Your task to perform on an android device: Show me productivity apps on the Play Store Image 0: 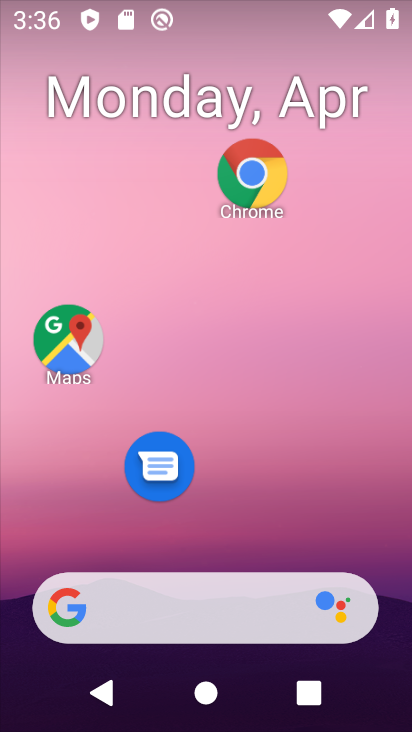
Step 0: drag from (332, 548) to (307, 113)
Your task to perform on an android device: Show me productivity apps on the Play Store Image 1: 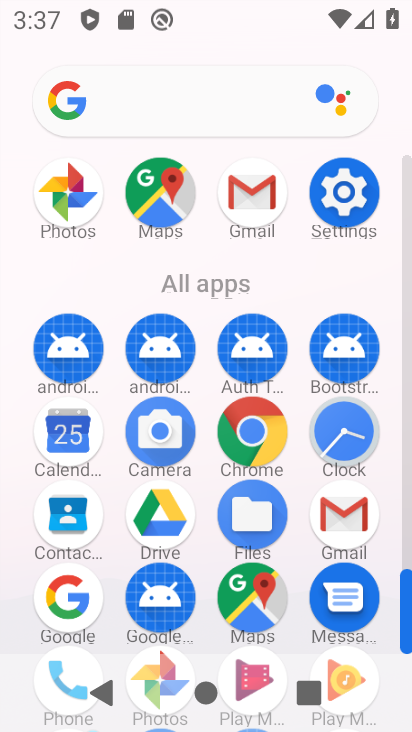
Step 1: drag from (392, 562) to (389, 330)
Your task to perform on an android device: Show me productivity apps on the Play Store Image 2: 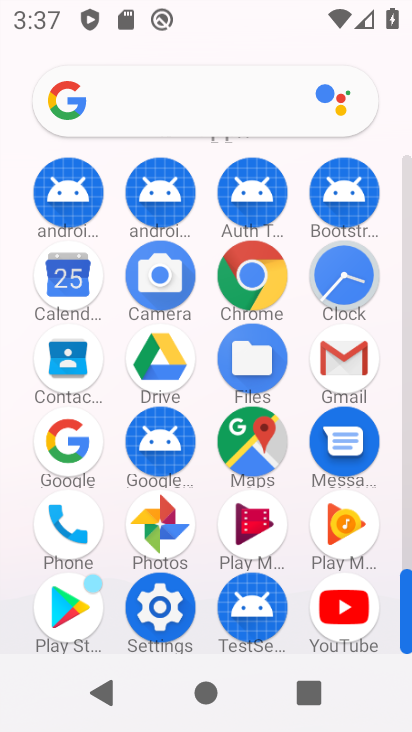
Step 2: click (67, 601)
Your task to perform on an android device: Show me productivity apps on the Play Store Image 3: 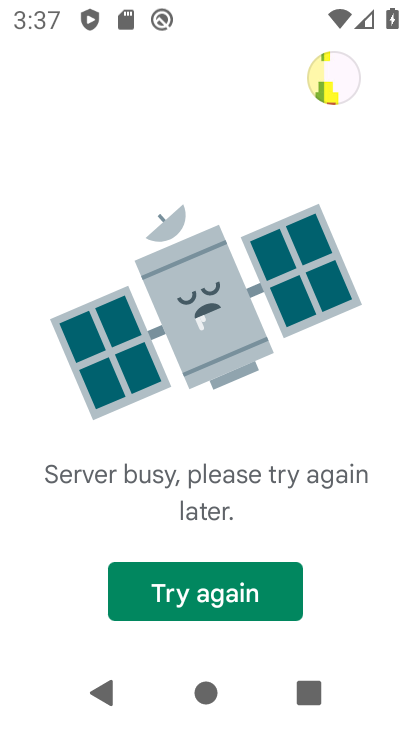
Step 3: click (219, 572)
Your task to perform on an android device: Show me productivity apps on the Play Store Image 4: 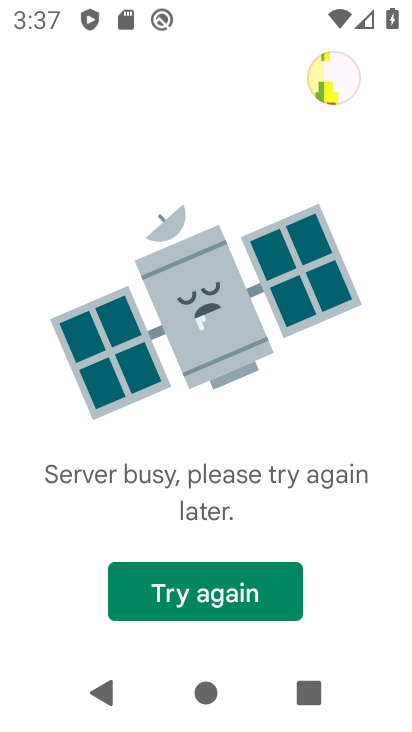
Step 4: click (224, 603)
Your task to perform on an android device: Show me productivity apps on the Play Store Image 5: 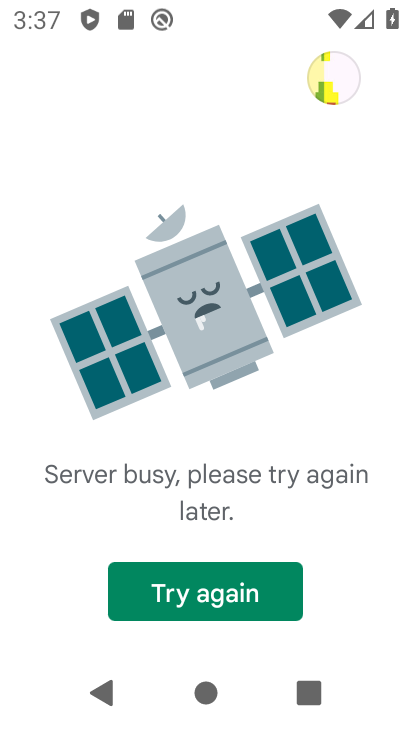
Step 5: task complete